Your task to perform on an android device: empty trash in the gmail app Image 0: 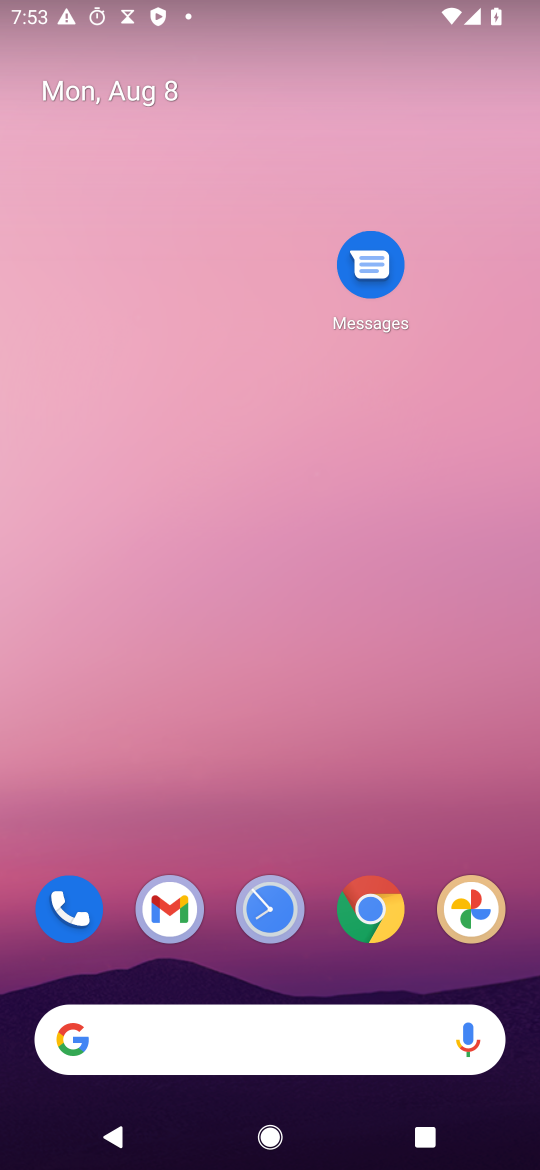
Step 0: click (169, 897)
Your task to perform on an android device: empty trash in the gmail app Image 1: 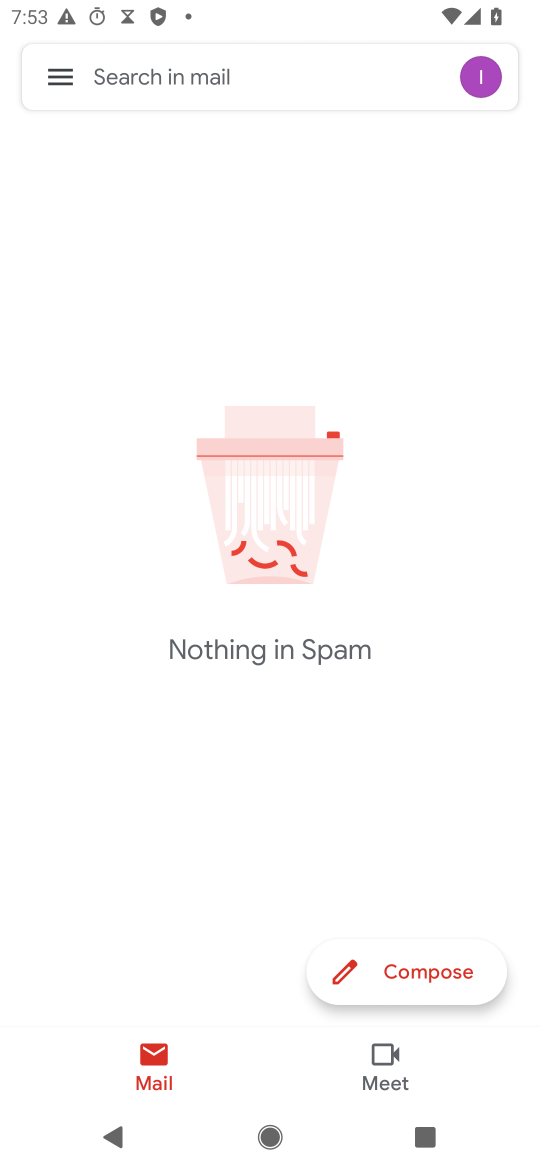
Step 1: click (61, 67)
Your task to perform on an android device: empty trash in the gmail app Image 2: 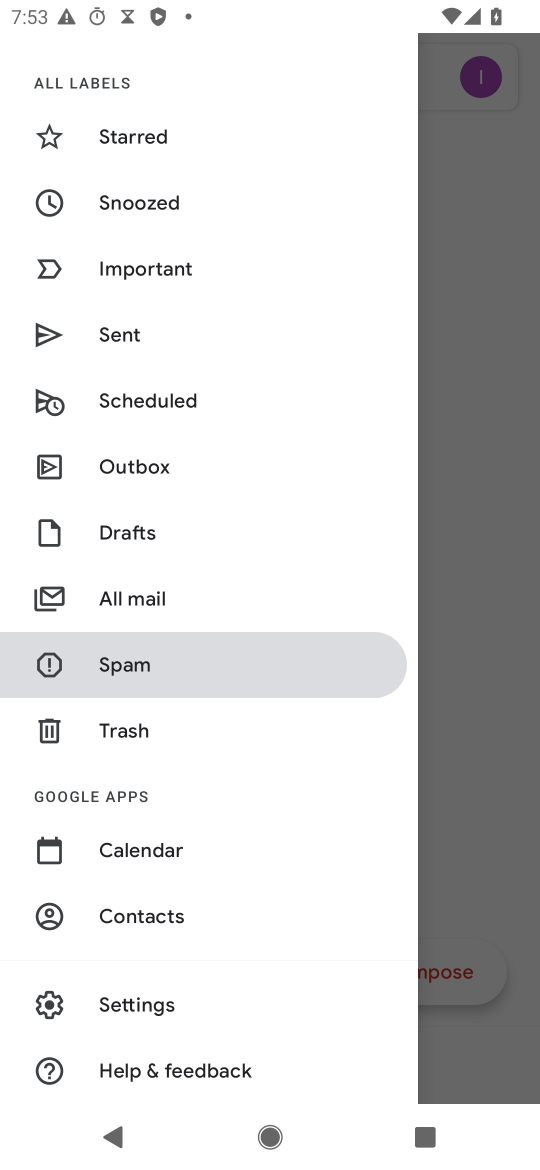
Step 2: click (139, 735)
Your task to perform on an android device: empty trash in the gmail app Image 3: 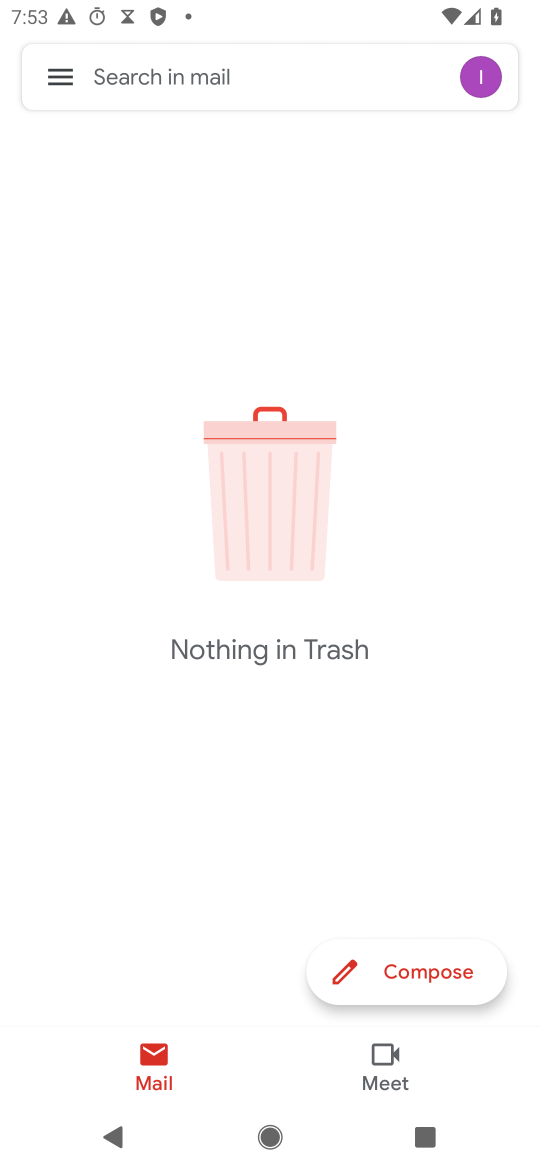
Step 3: task complete